Your task to perform on an android device: Open calendar and show me the first week of next month Image 0: 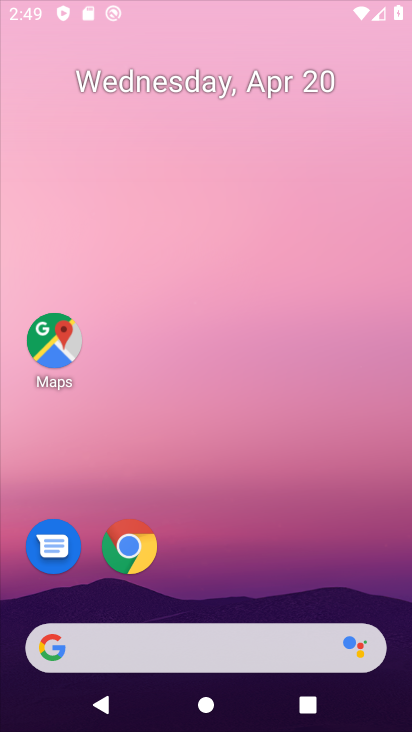
Step 0: drag from (223, 600) to (214, 422)
Your task to perform on an android device: Open calendar and show me the first week of next month Image 1: 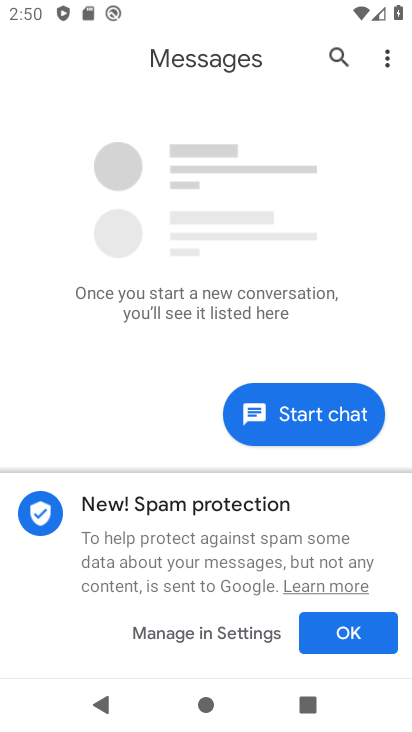
Step 1: press home button
Your task to perform on an android device: Open calendar and show me the first week of next month Image 2: 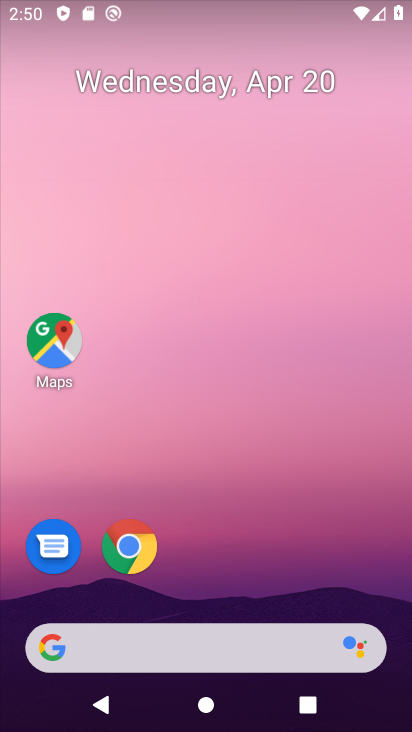
Step 2: drag from (282, 470) to (296, 117)
Your task to perform on an android device: Open calendar and show me the first week of next month Image 3: 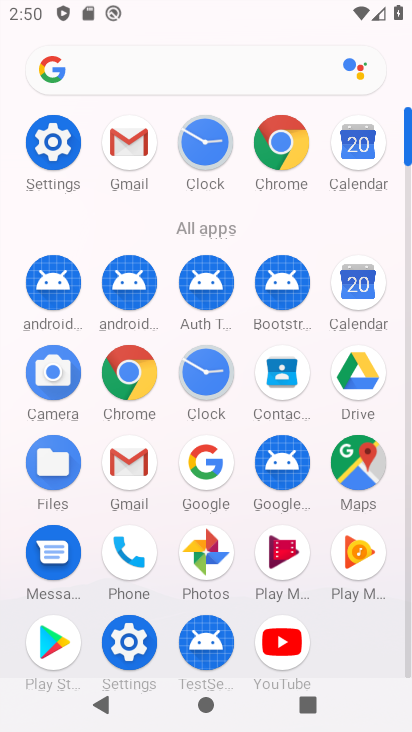
Step 3: click (361, 300)
Your task to perform on an android device: Open calendar and show me the first week of next month Image 4: 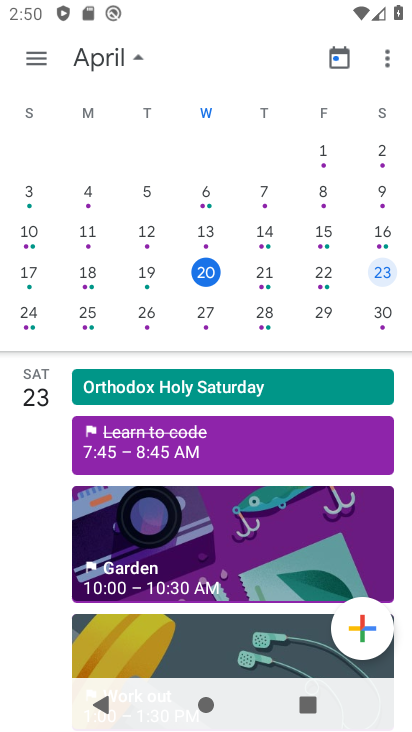
Step 4: drag from (349, 294) to (9, 304)
Your task to perform on an android device: Open calendar and show me the first week of next month Image 5: 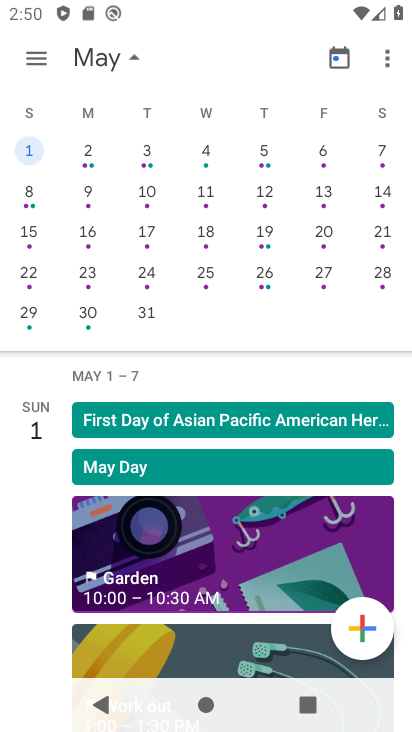
Step 5: click (88, 160)
Your task to perform on an android device: Open calendar and show me the first week of next month Image 6: 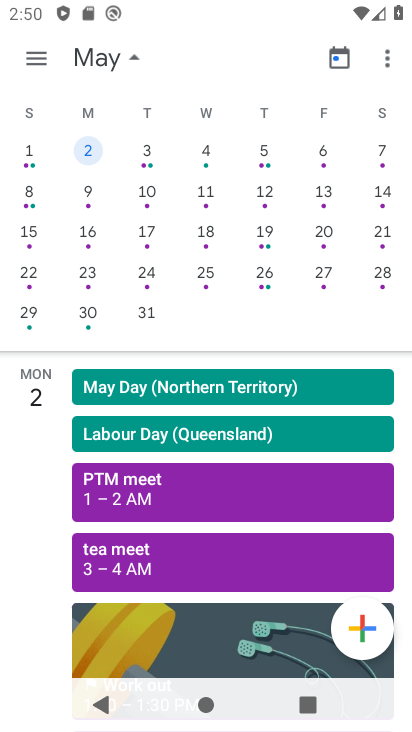
Step 6: click (148, 164)
Your task to perform on an android device: Open calendar and show me the first week of next month Image 7: 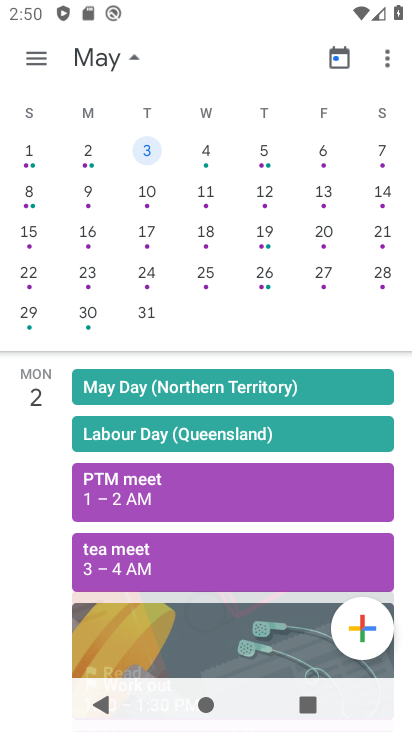
Step 7: click (203, 163)
Your task to perform on an android device: Open calendar and show me the first week of next month Image 8: 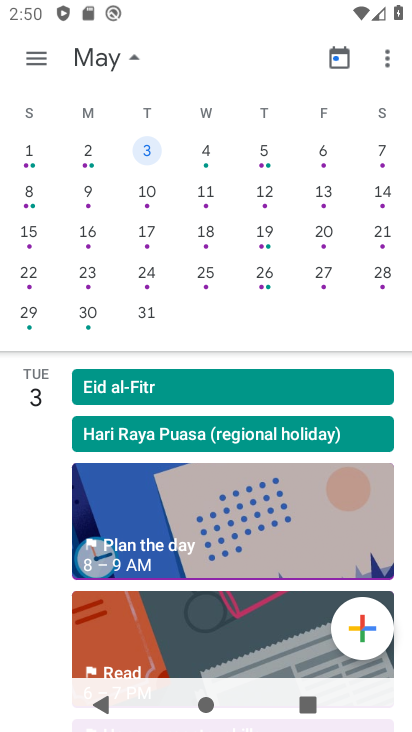
Step 8: click (260, 163)
Your task to perform on an android device: Open calendar and show me the first week of next month Image 9: 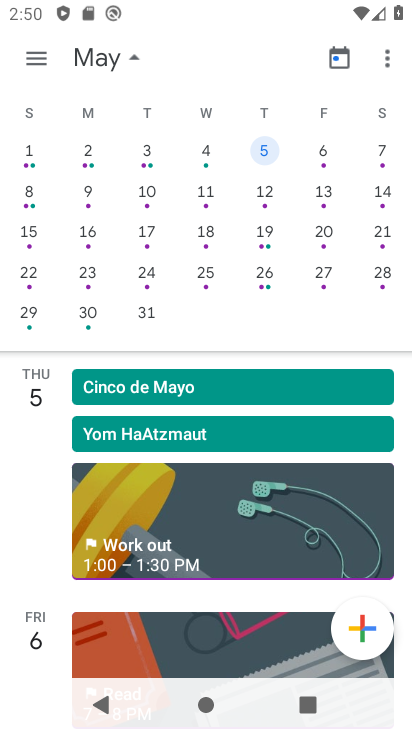
Step 9: click (328, 160)
Your task to perform on an android device: Open calendar and show me the first week of next month Image 10: 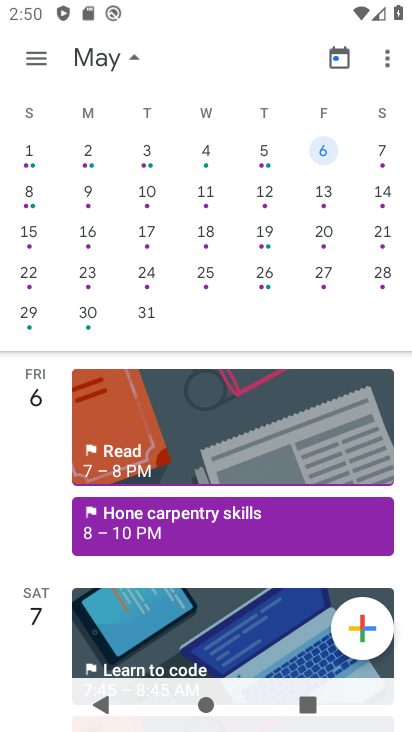
Step 10: click (380, 162)
Your task to perform on an android device: Open calendar and show me the first week of next month Image 11: 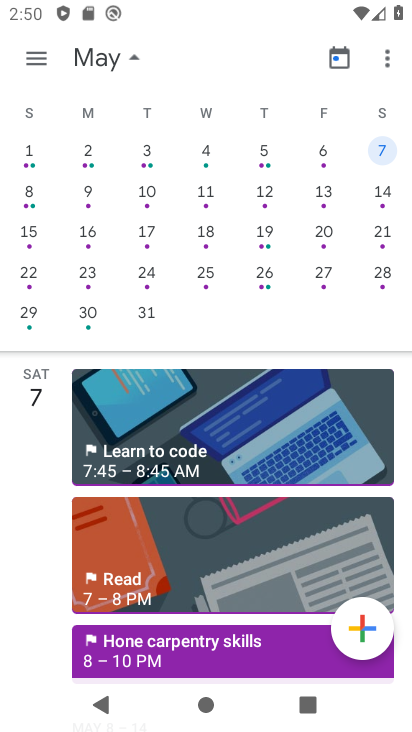
Step 11: task complete